Your task to perform on an android device: Open Google Maps and go to "Timeline" Image 0: 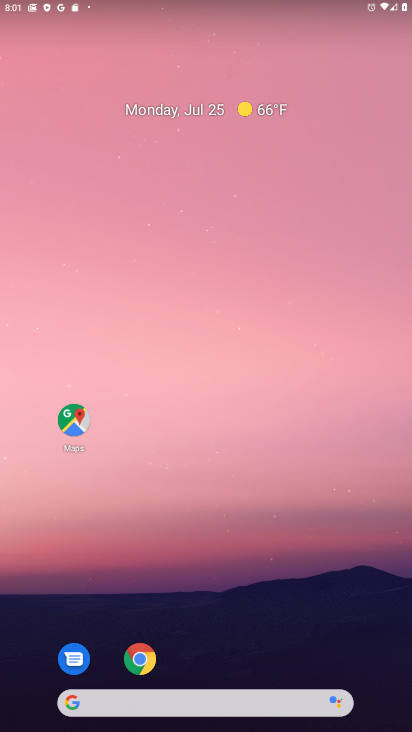
Step 0: drag from (202, 677) to (164, 247)
Your task to perform on an android device: Open Google Maps and go to "Timeline" Image 1: 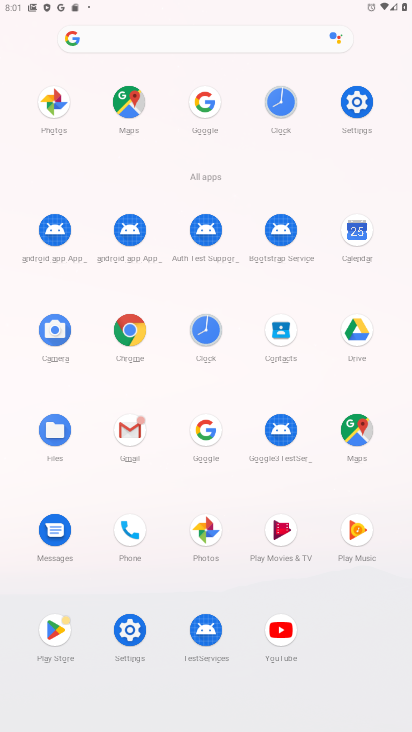
Step 1: click (352, 447)
Your task to perform on an android device: Open Google Maps and go to "Timeline" Image 2: 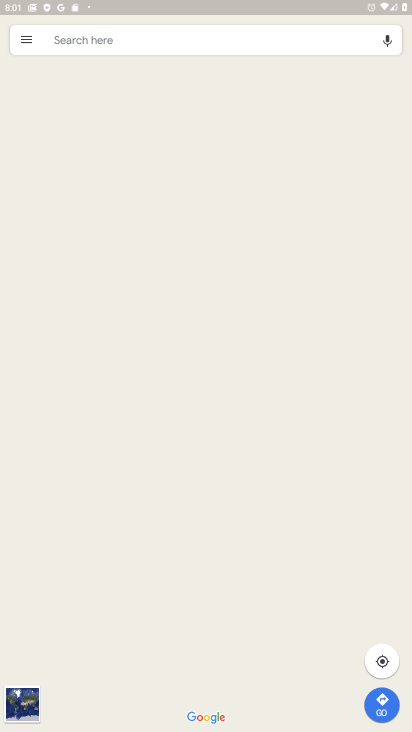
Step 2: click (22, 28)
Your task to perform on an android device: Open Google Maps and go to "Timeline" Image 3: 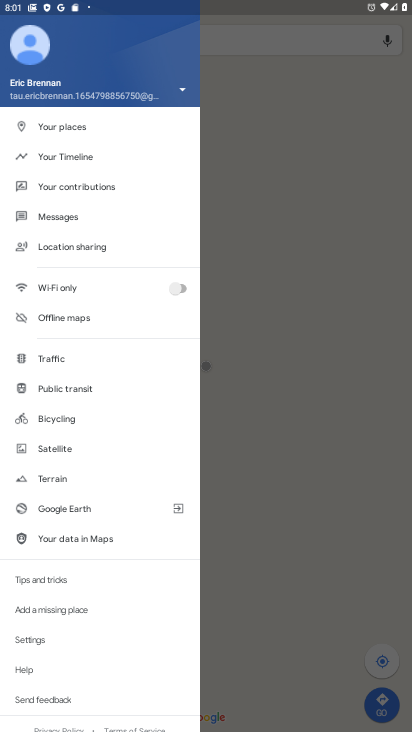
Step 3: click (66, 148)
Your task to perform on an android device: Open Google Maps and go to "Timeline" Image 4: 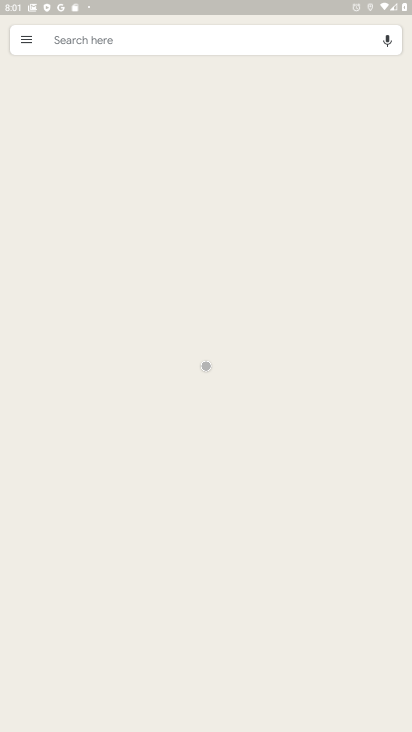
Step 4: task complete